Your task to perform on an android device: turn on airplane mode Image 0: 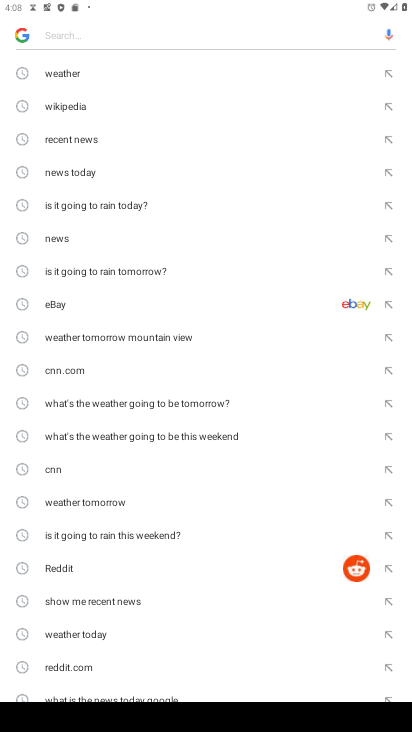
Step 0: press home button
Your task to perform on an android device: turn on airplane mode Image 1: 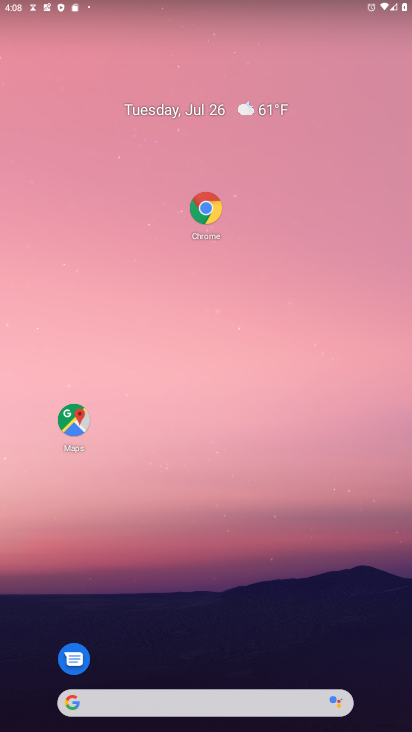
Step 1: click (188, 652)
Your task to perform on an android device: turn on airplane mode Image 2: 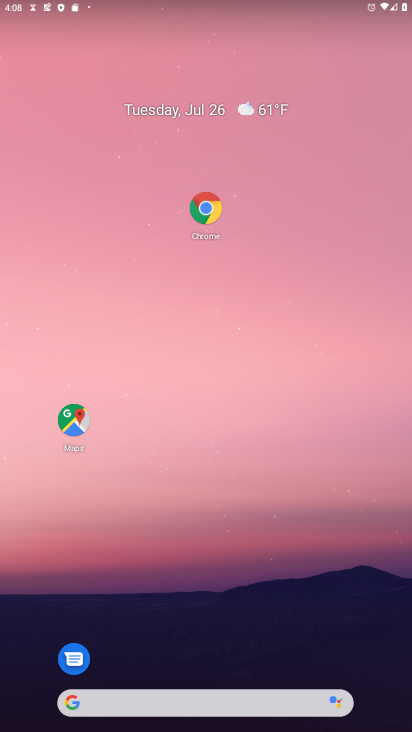
Step 2: drag from (197, 486) to (186, 6)
Your task to perform on an android device: turn on airplane mode Image 3: 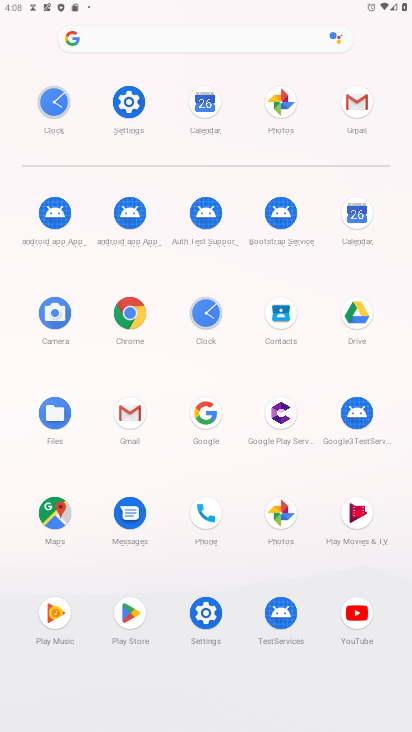
Step 3: click (119, 103)
Your task to perform on an android device: turn on airplane mode Image 4: 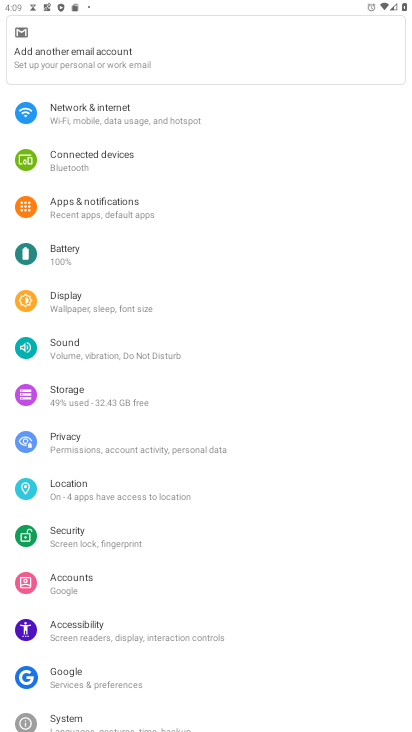
Step 4: click (90, 117)
Your task to perform on an android device: turn on airplane mode Image 5: 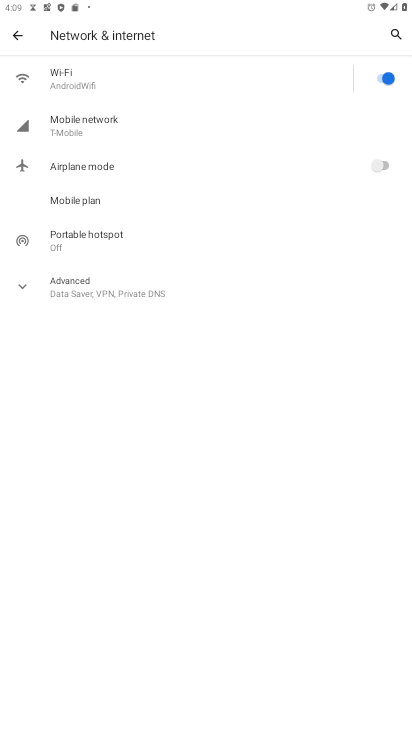
Step 5: click (388, 165)
Your task to perform on an android device: turn on airplane mode Image 6: 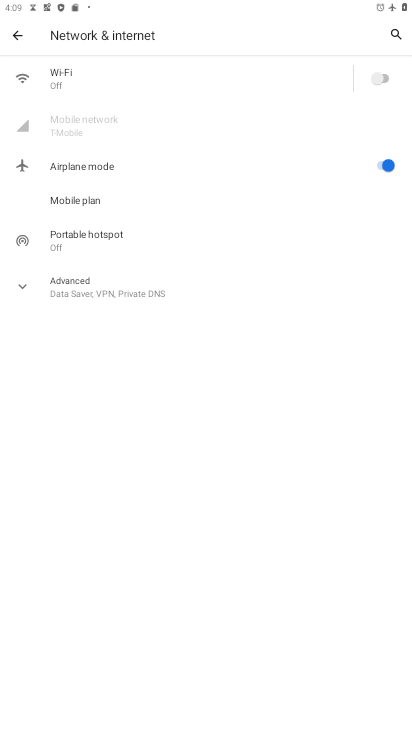
Step 6: task complete